Your task to perform on an android device: open a new tab in the chrome app Image 0: 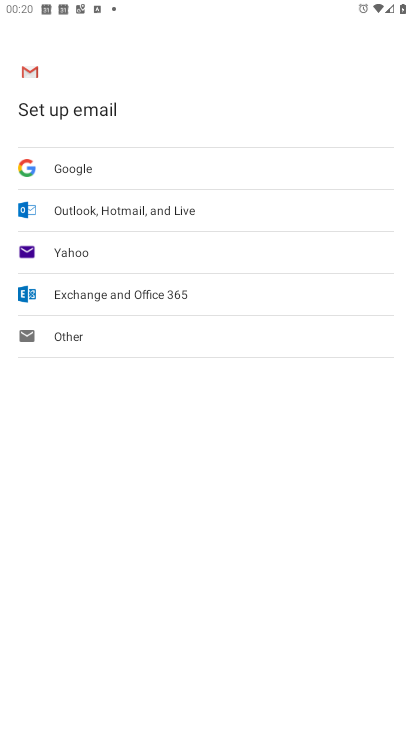
Step 0: press home button
Your task to perform on an android device: open a new tab in the chrome app Image 1: 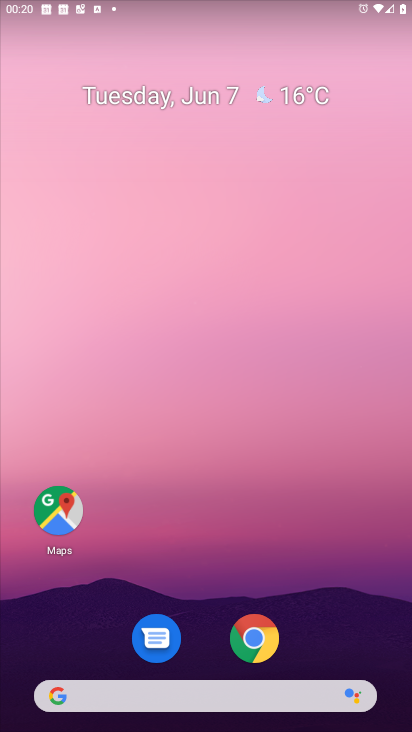
Step 1: drag from (211, 698) to (272, 94)
Your task to perform on an android device: open a new tab in the chrome app Image 2: 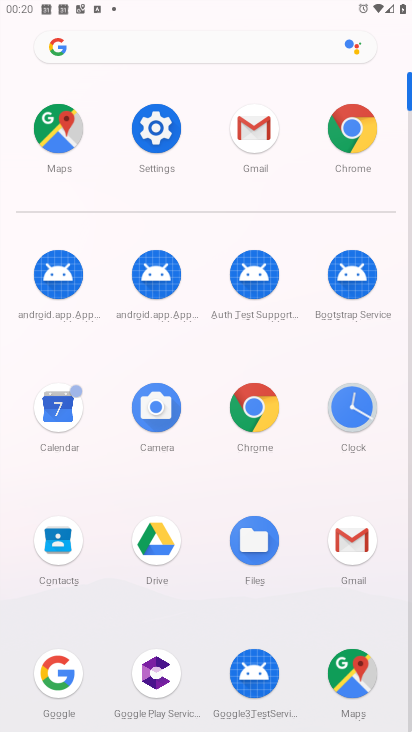
Step 2: click (261, 391)
Your task to perform on an android device: open a new tab in the chrome app Image 3: 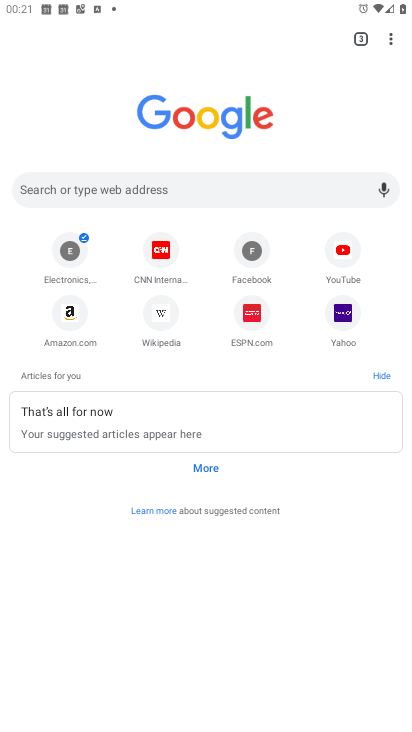
Step 3: task complete